Your task to perform on an android device: change alarm snooze length Image 0: 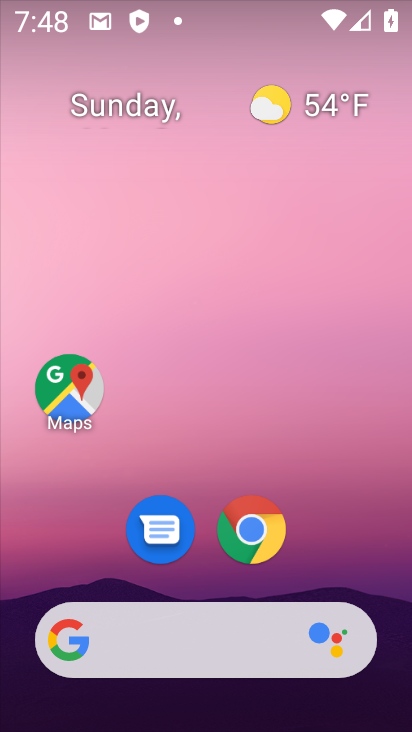
Step 0: drag from (214, 569) to (231, 63)
Your task to perform on an android device: change alarm snooze length Image 1: 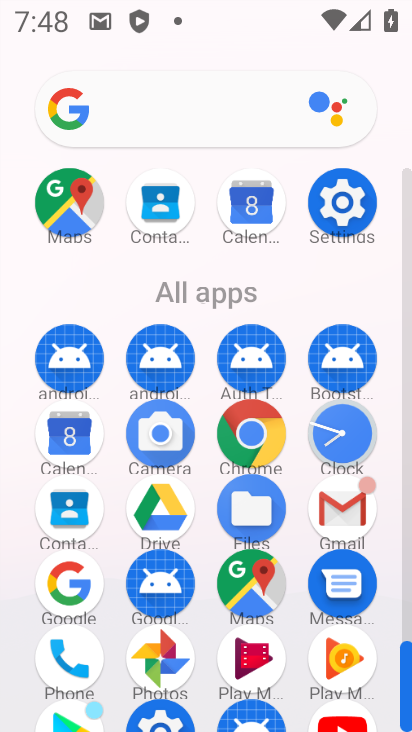
Step 1: click (347, 431)
Your task to perform on an android device: change alarm snooze length Image 2: 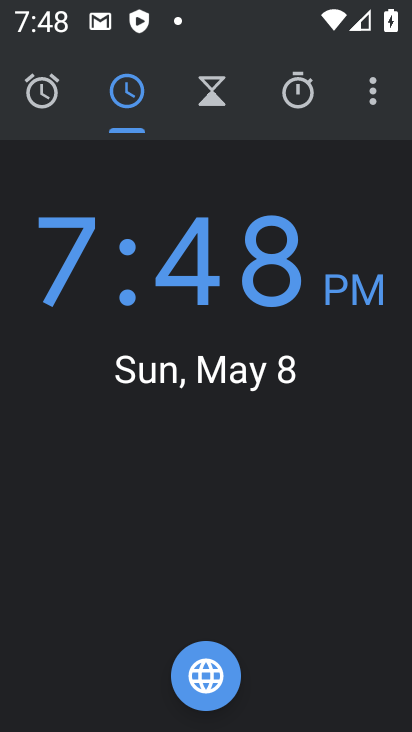
Step 2: click (365, 107)
Your task to perform on an android device: change alarm snooze length Image 3: 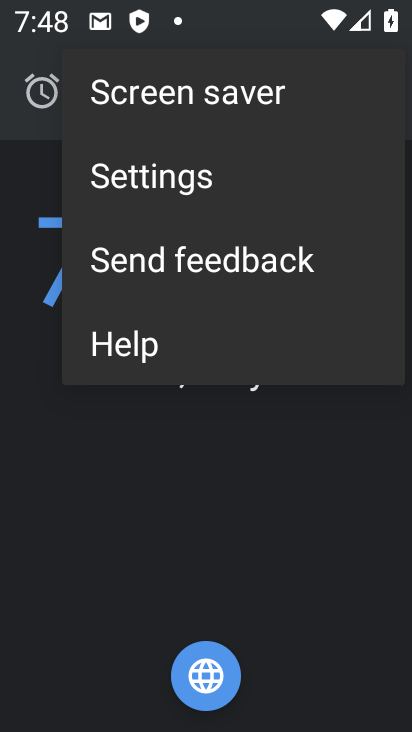
Step 3: click (211, 197)
Your task to perform on an android device: change alarm snooze length Image 4: 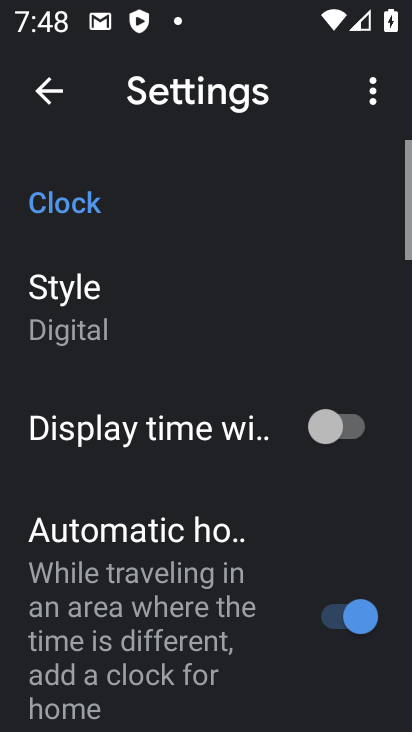
Step 4: drag from (204, 547) to (246, 273)
Your task to perform on an android device: change alarm snooze length Image 5: 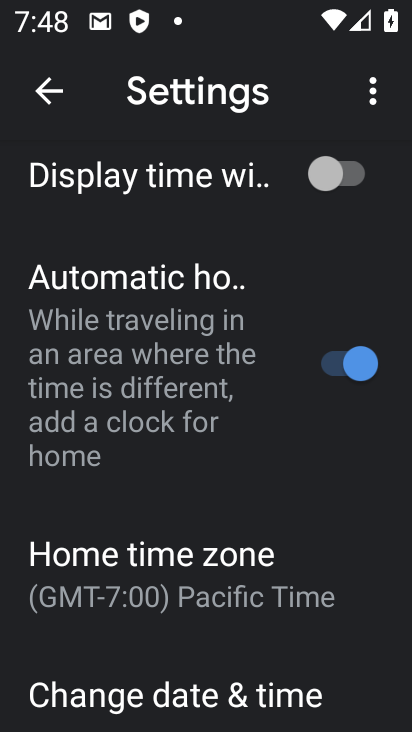
Step 5: drag from (225, 487) to (269, 216)
Your task to perform on an android device: change alarm snooze length Image 6: 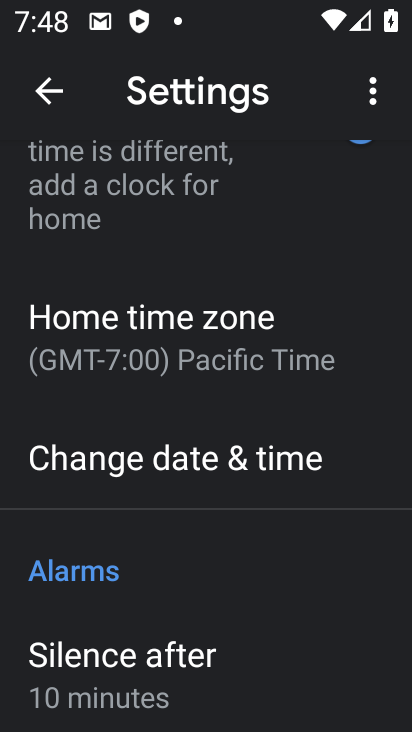
Step 6: drag from (232, 567) to (279, 233)
Your task to perform on an android device: change alarm snooze length Image 7: 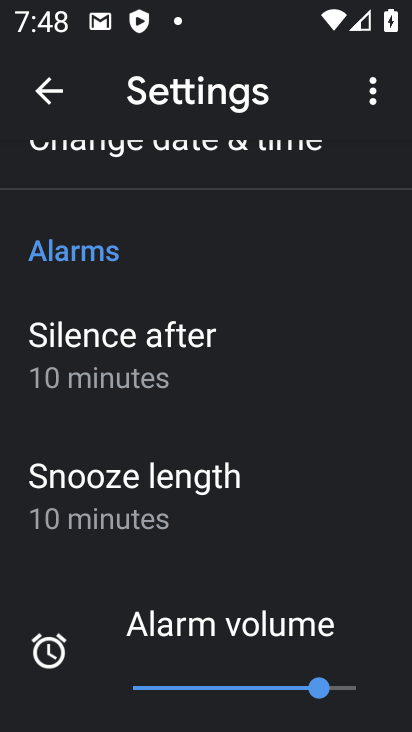
Step 7: click (199, 483)
Your task to perform on an android device: change alarm snooze length Image 8: 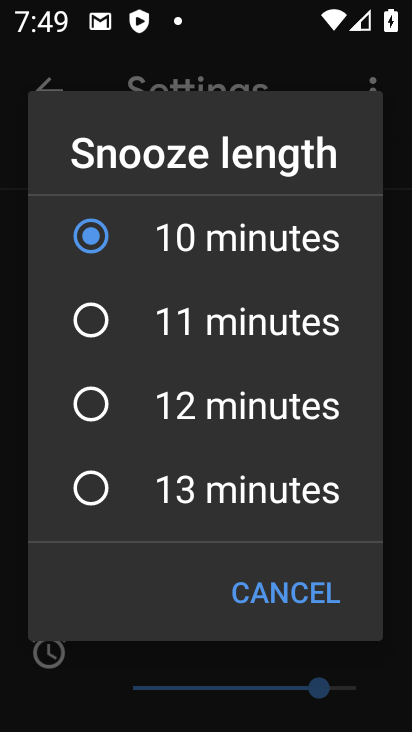
Step 8: click (104, 424)
Your task to perform on an android device: change alarm snooze length Image 9: 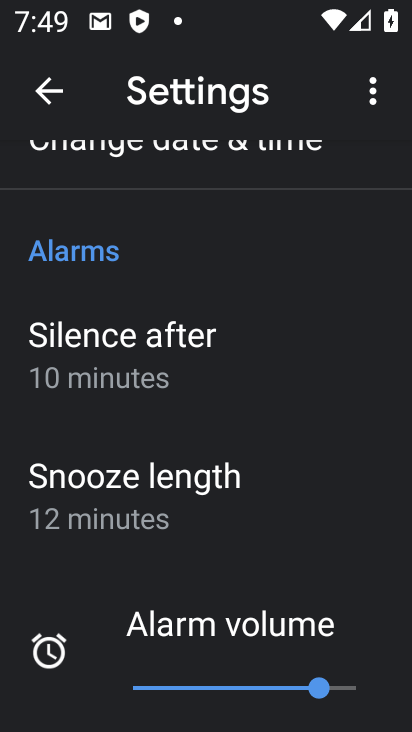
Step 9: task complete